Your task to perform on an android device: read, delete, or share a saved page in the chrome app Image 0: 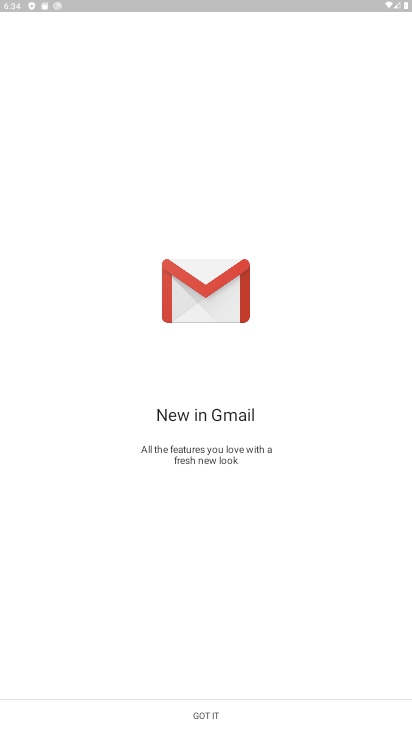
Step 0: press home button
Your task to perform on an android device: read, delete, or share a saved page in the chrome app Image 1: 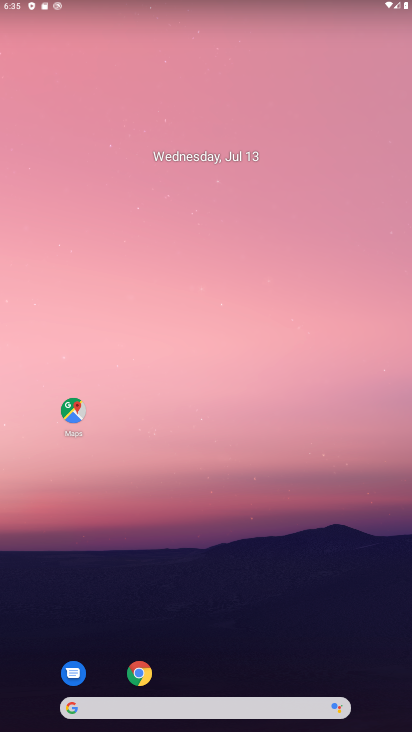
Step 1: drag from (259, 586) to (324, 120)
Your task to perform on an android device: read, delete, or share a saved page in the chrome app Image 2: 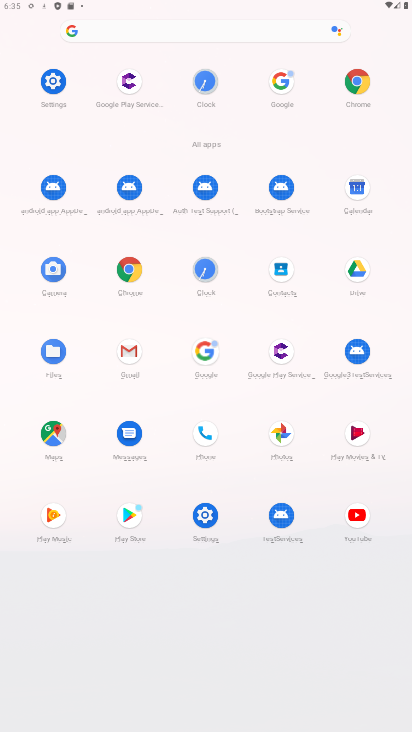
Step 2: click (358, 85)
Your task to perform on an android device: read, delete, or share a saved page in the chrome app Image 3: 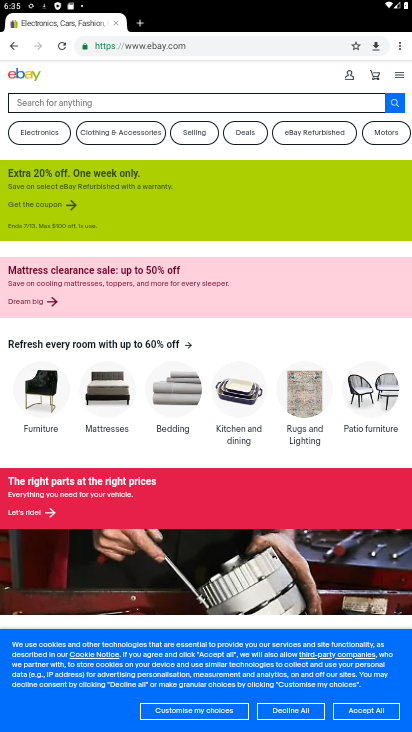
Step 3: task complete